Your task to perform on an android device: turn notification dots on Image 0: 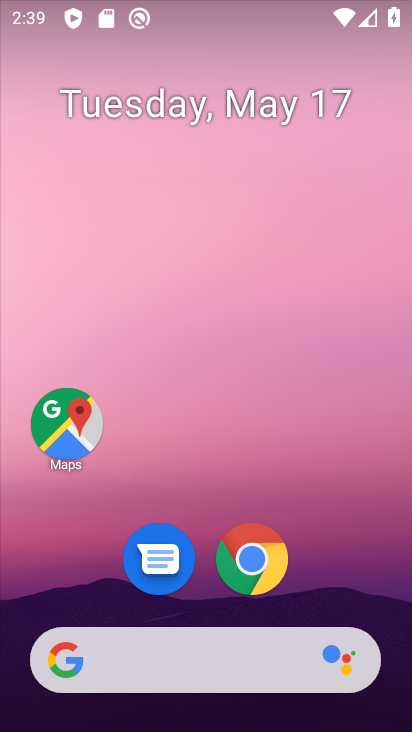
Step 0: drag from (217, 505) to (171, 54)
Your task to perform on an android device: turn notification dots on Image 1: 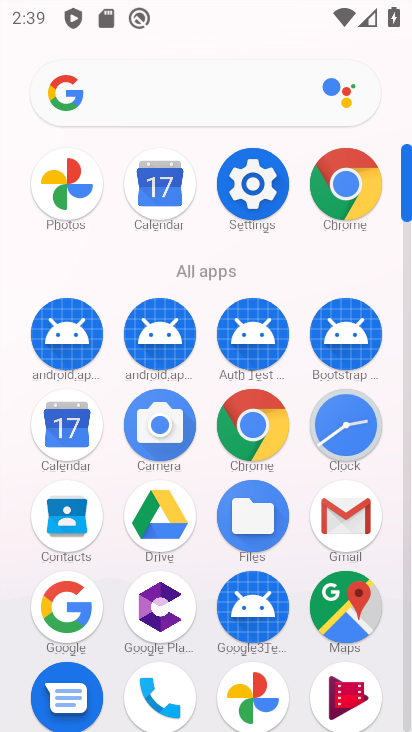
Step 1: click (241, 192)
Your task to perform on an android device: turn notification dots on Image 2: 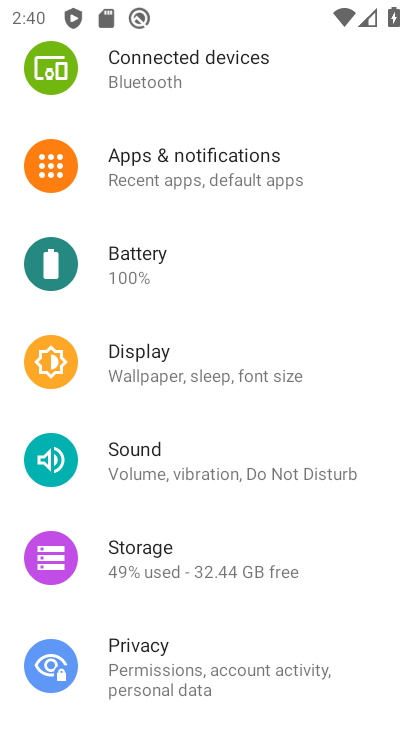
Step 2: click (200, 151)
Your task to perform on an android device: turn notification dots on Image 3: 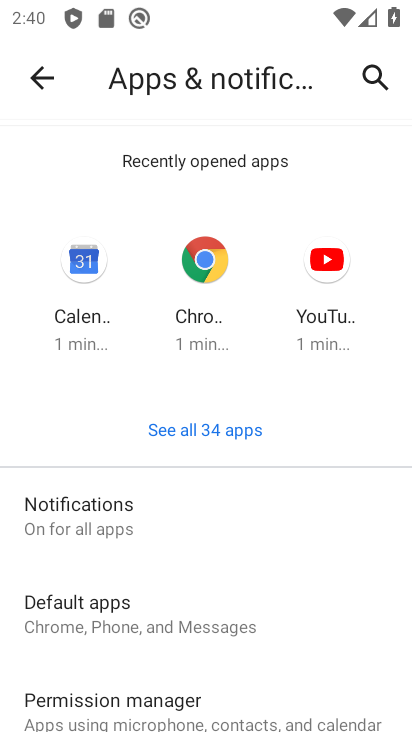
Step 3: click (191, 533)
Your task to perform on an android device: turn notification dots on Image 4: 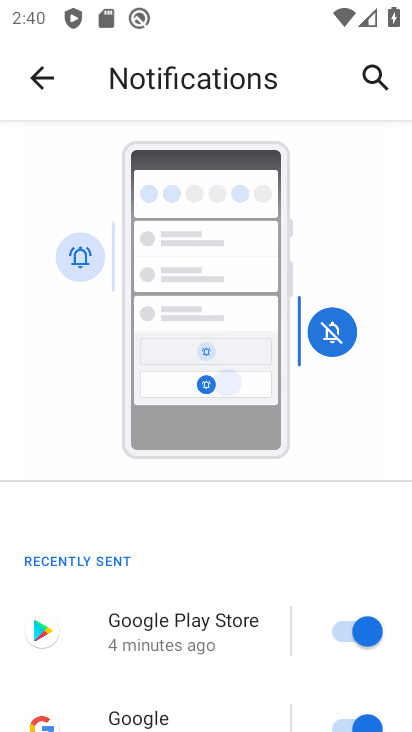
Step 4: drag from (230, 693) to (220, 196)
Your task to perform on an android device: turn notification dots on Image 5: 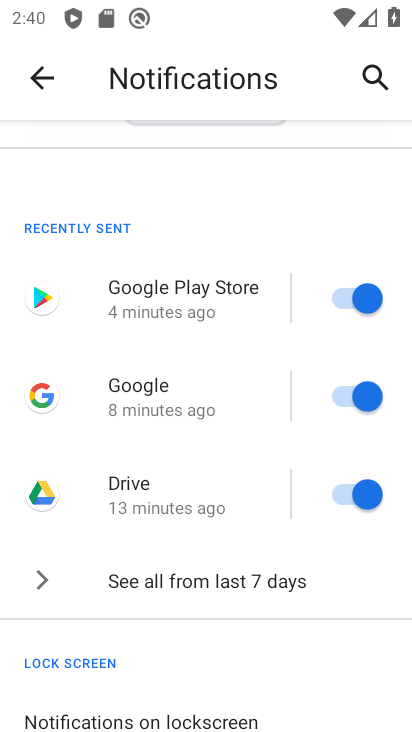
Step 5: drag from (260, 639) to (202, 254)
Your task to perform on an android device: turn notification dots on Image 6: 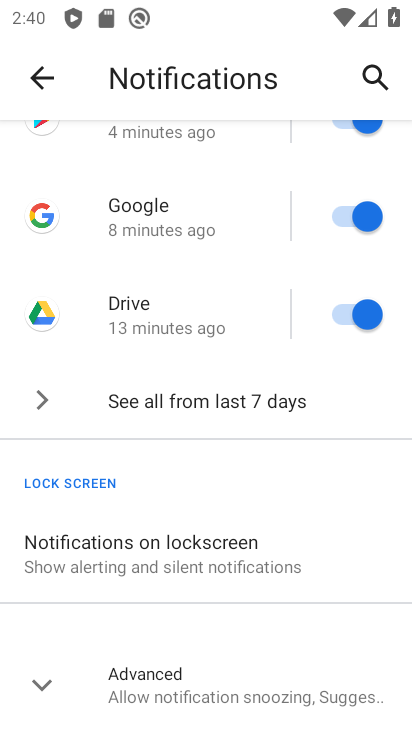
Step 6: drag from (228, 573) to (239, 645)
Your task to perform on an android device: turn notification dots on Image 7: 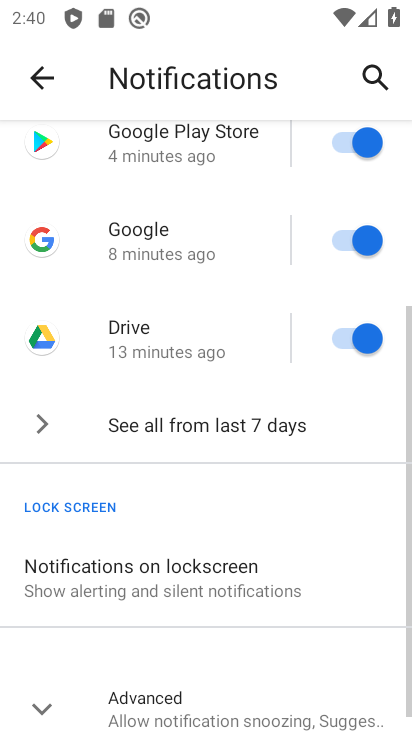
Step 7: drag from (239, 645) to (173, 285)
Your task to perform on an android device: turn notification dots on Image 8: 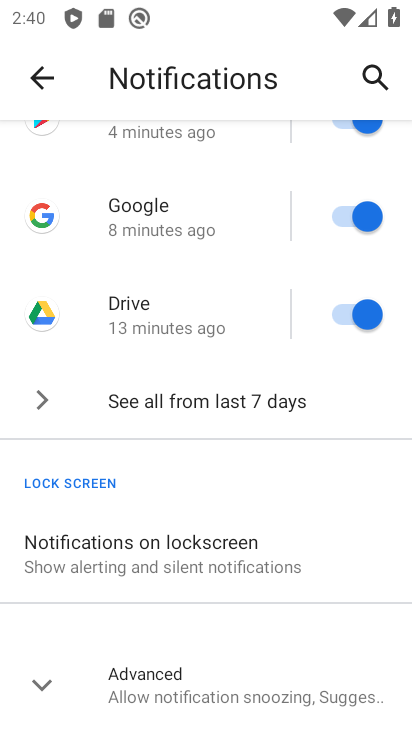
Step 8: click (233, 702)
Your task to perform on an android device: turn notification dots on Image 9: 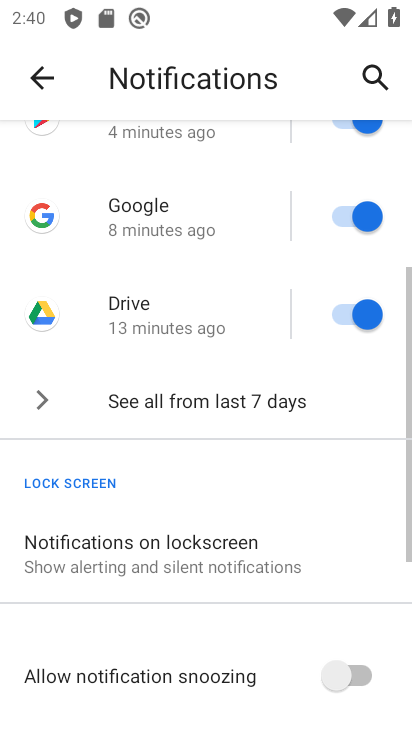
Step 9: task complete